Your task to perform on an android device: How much does a 2 bedroom apartment rent for in Philadelphia? Image 0: 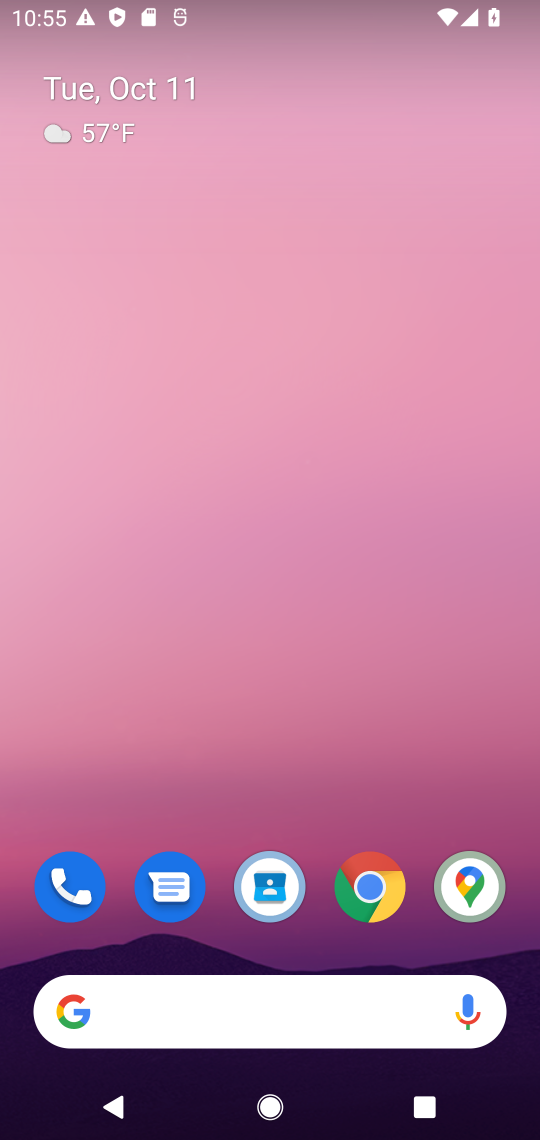
Step 0: click (323, 1008)
Your task to perform on an android device: How much does a 2 bedroom apartment rent for in Philadelphia? Image 1: 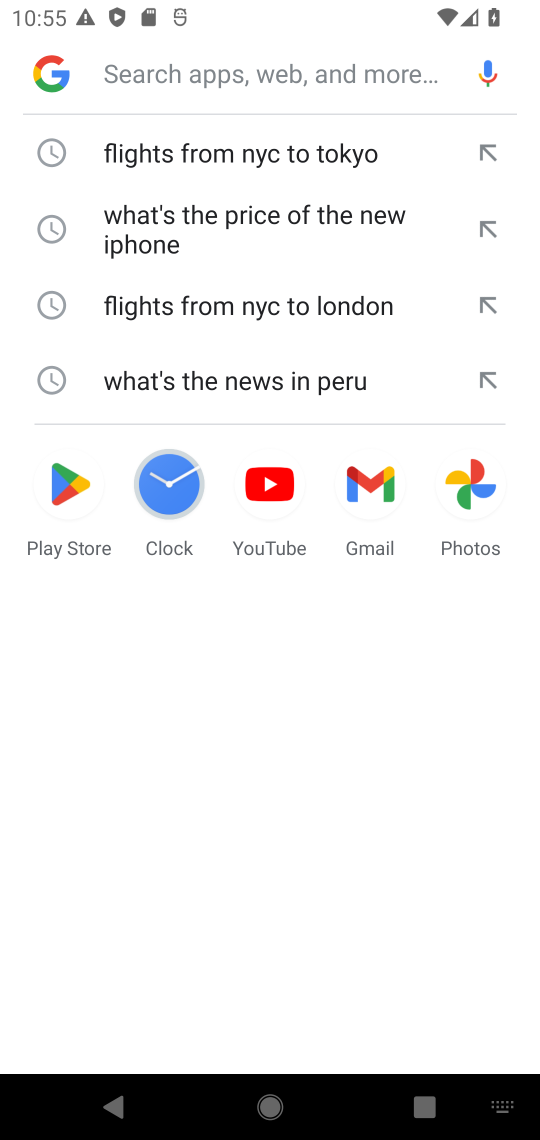
Step 1: press enter
Your task to perform on an android device: How much does a 2 bedroom apartment rent for in Philadelphia? Image 2: 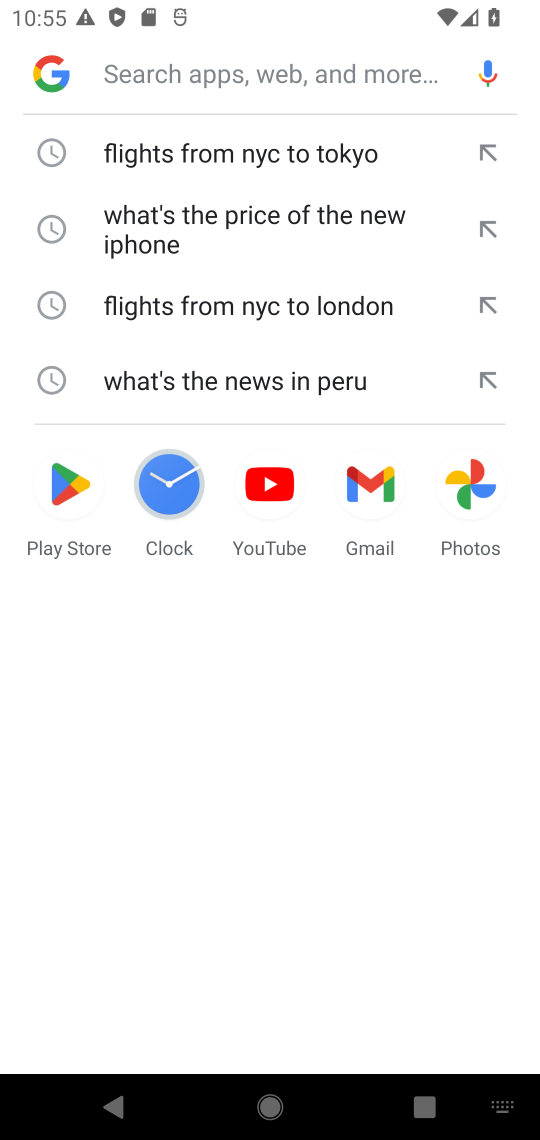
Step 2: type "2 bedroom apartment rent for in Philadelphia"
Your task to perform on an android device: How much does a 2 bedroom apartment rent for in Philadelphia? Image 3: 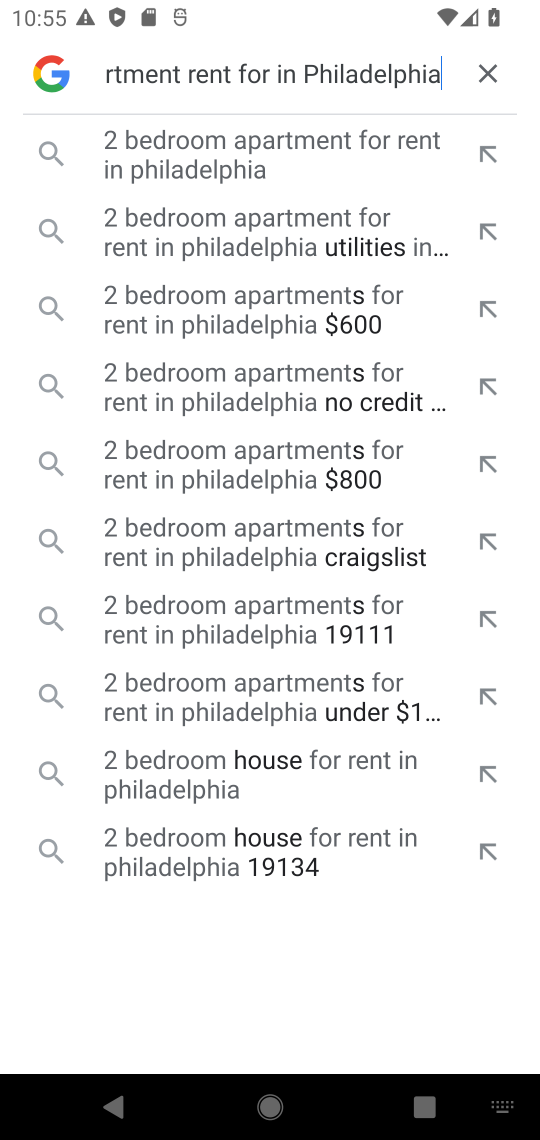
Step 3: press enter
Your task to perform on an android device: How much does a 2 bedroom apartment rent for in Philadelphia? Image 4: 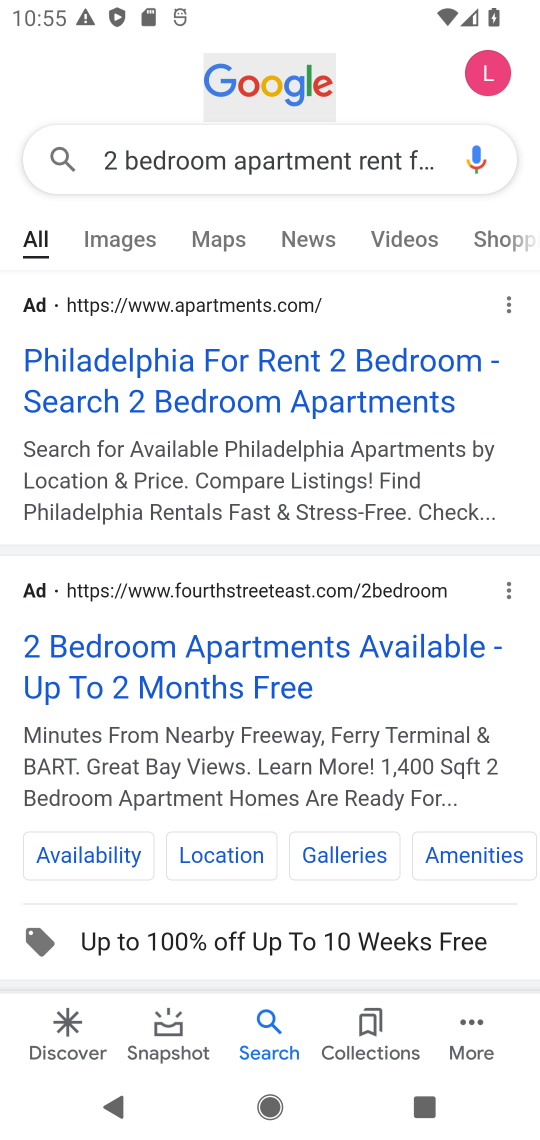
Step 4: click (249, 402)
Your task to perform on an android device: How much does a 2 bedroom apartment rent for in Philadelphia? Image 5: 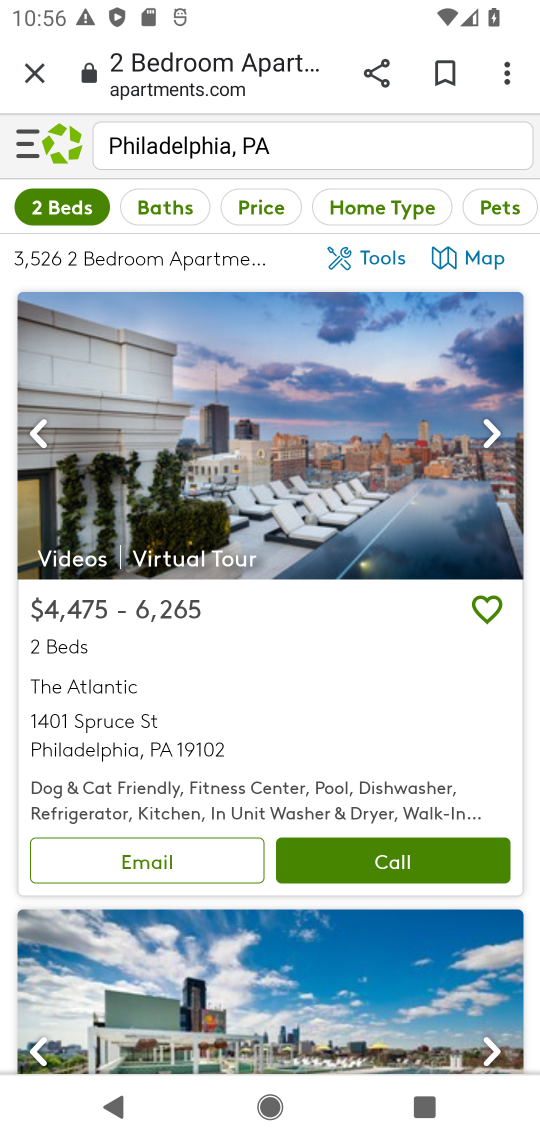
Step 5: task complete